Your task to perform on an android device: create a new album in the google photos Image 0: 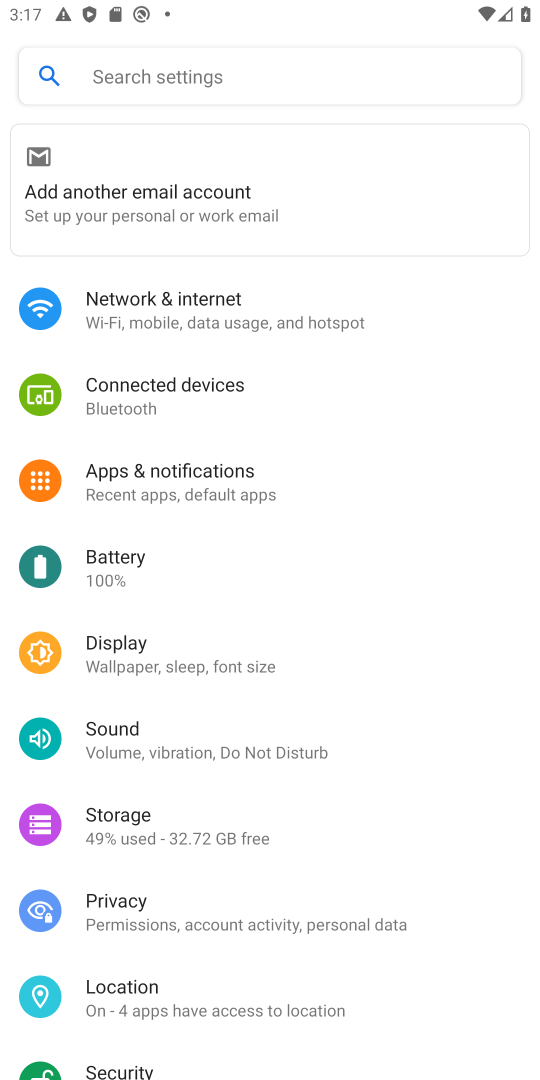
Step 0: press back button
Your task to perform on an android device: create a new album in the google photos Image 1: 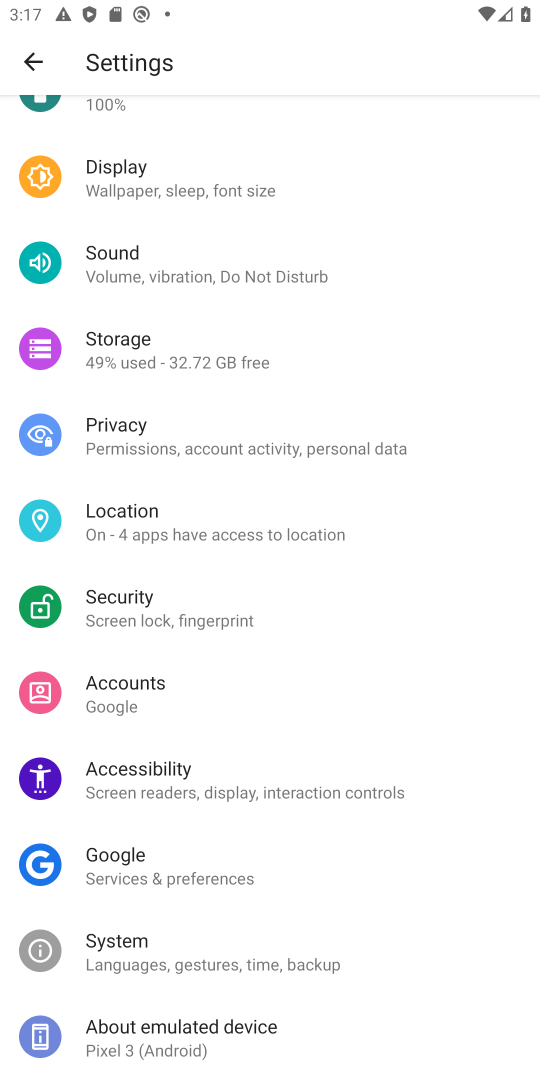
Step 1: press home button
Your task to perform on an android device: create a new album in the google photos Image 2: 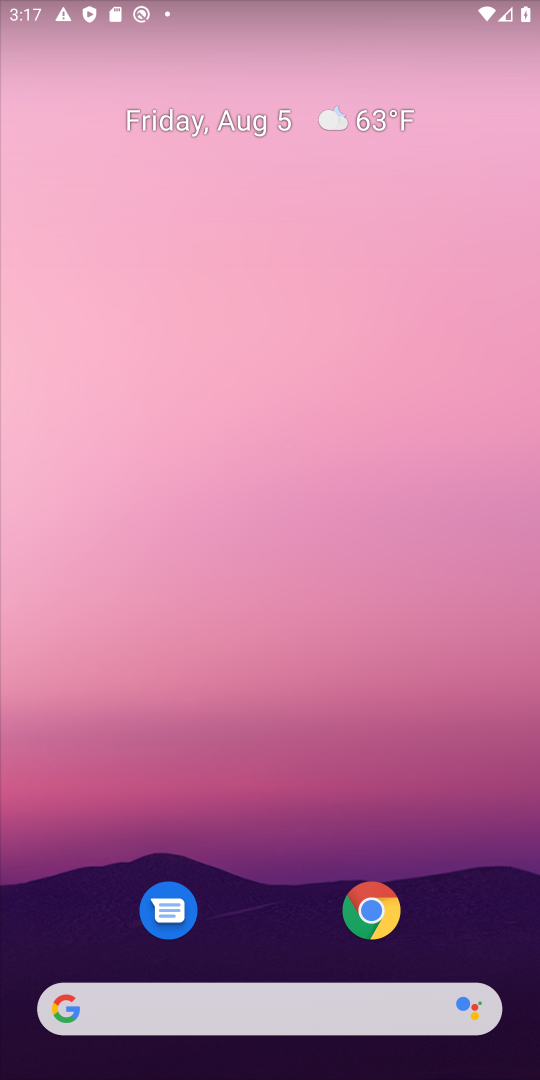
Step 2: drag from (456, 946) to (134, 137)
Your task to perform on an android device: create a new album in the google photos Image 3: 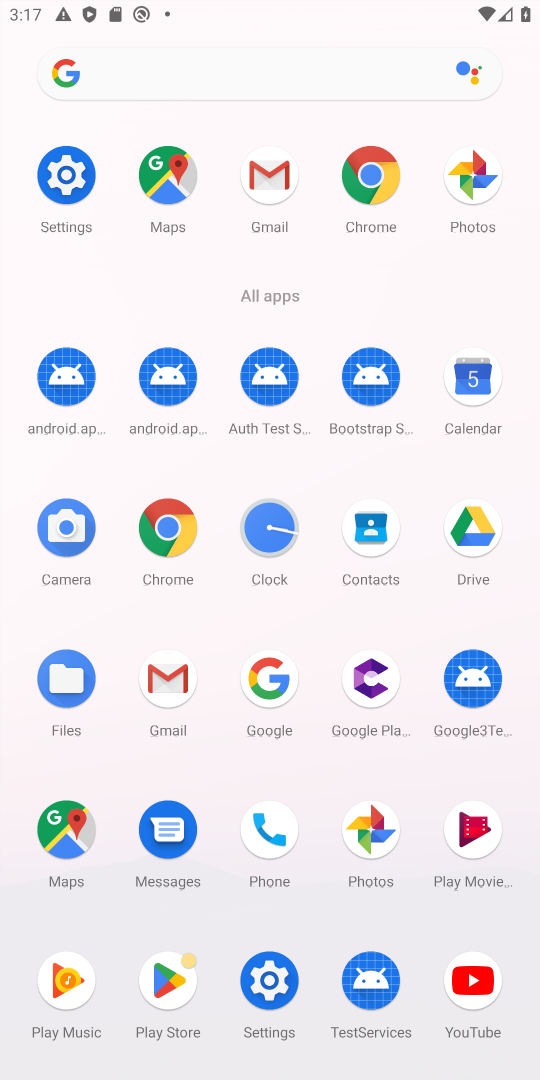
Step 3: click (481, 180)
Your task to perform on an android device: create a new album in the google photos Image 4: 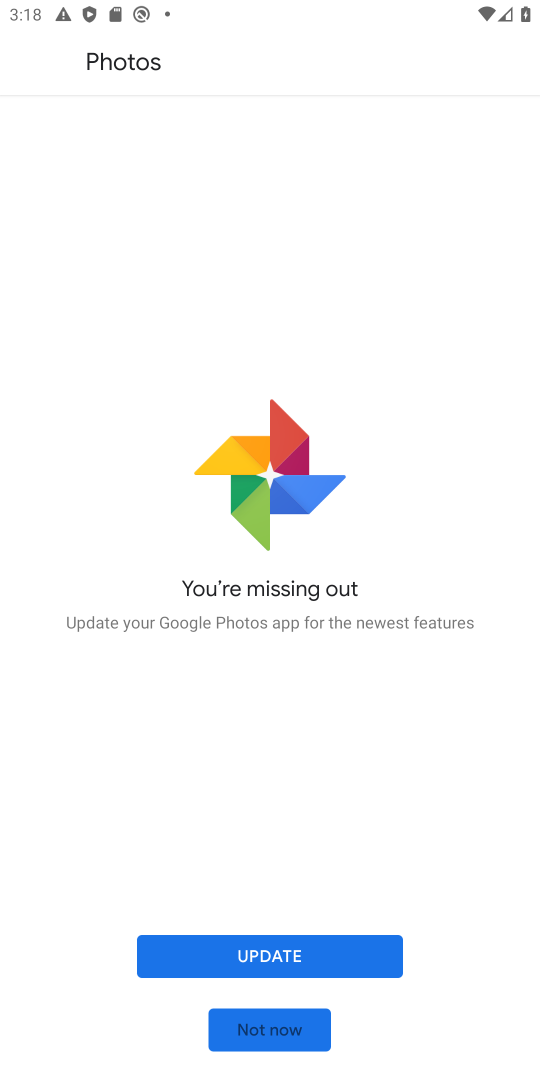
Step 4: click (305, 944)
Your task to perform on an android device: create a new album in the google photos Image 5: 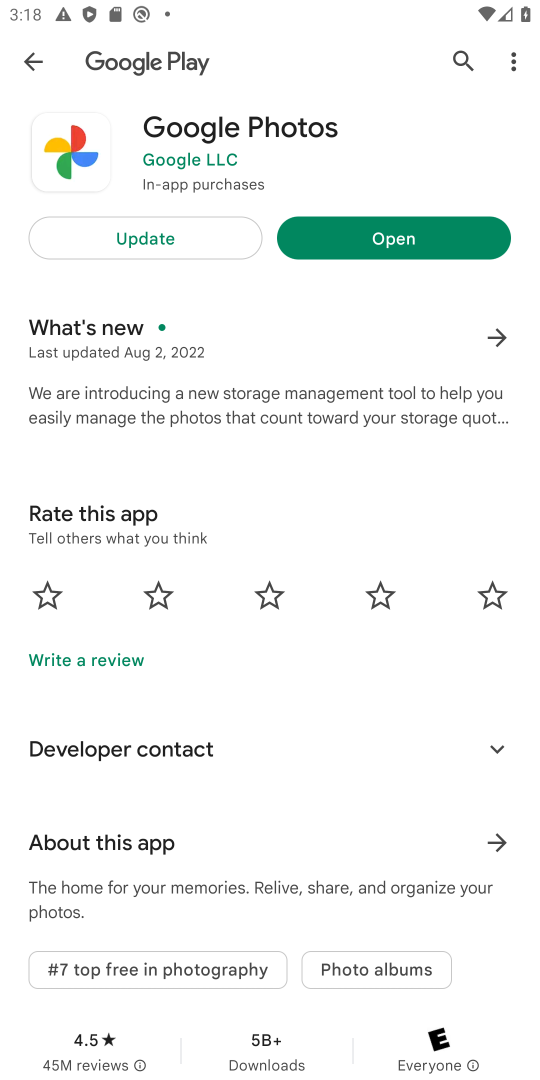
Step 5: click (128, 229)
Your task to perform on an android device: create a new album in the google photos Image 6: 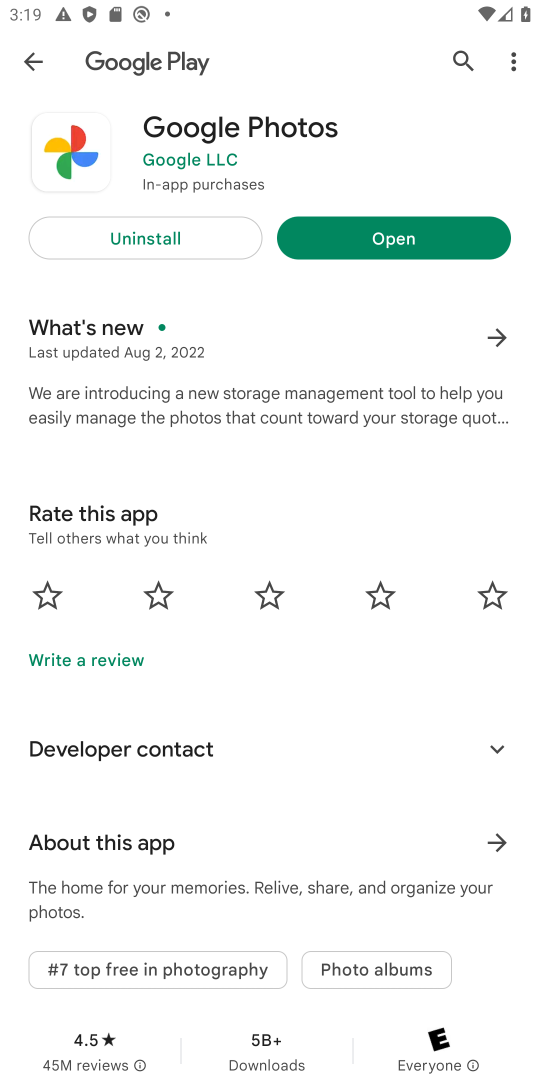
Step 6: click (477, 246)
Your task to perform on an android device: create a new album in the google photos Image 7: 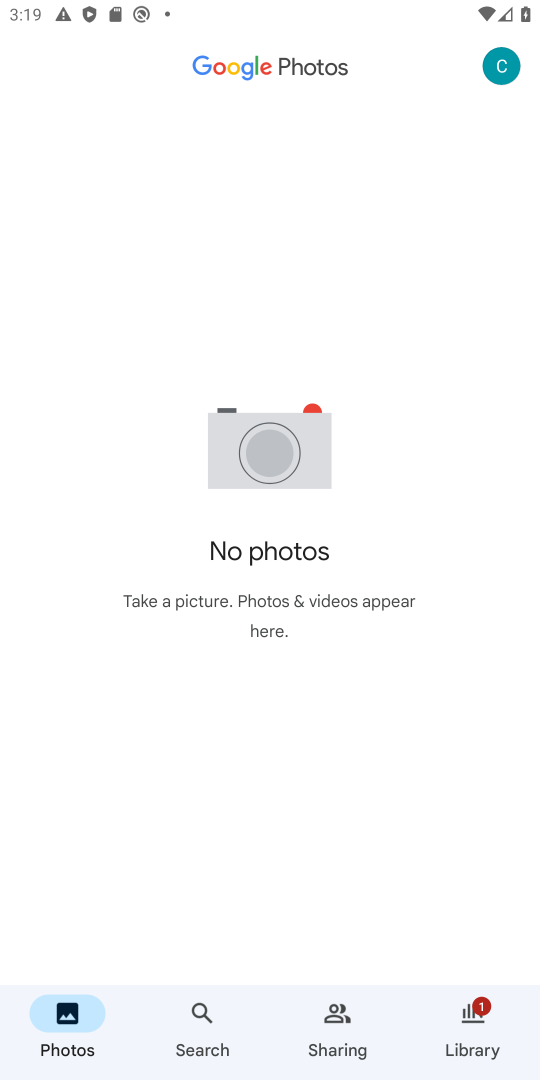
Step 7: click (473, 1044)
Your task to perform on an android device: create a new album in the google photos Image 8: 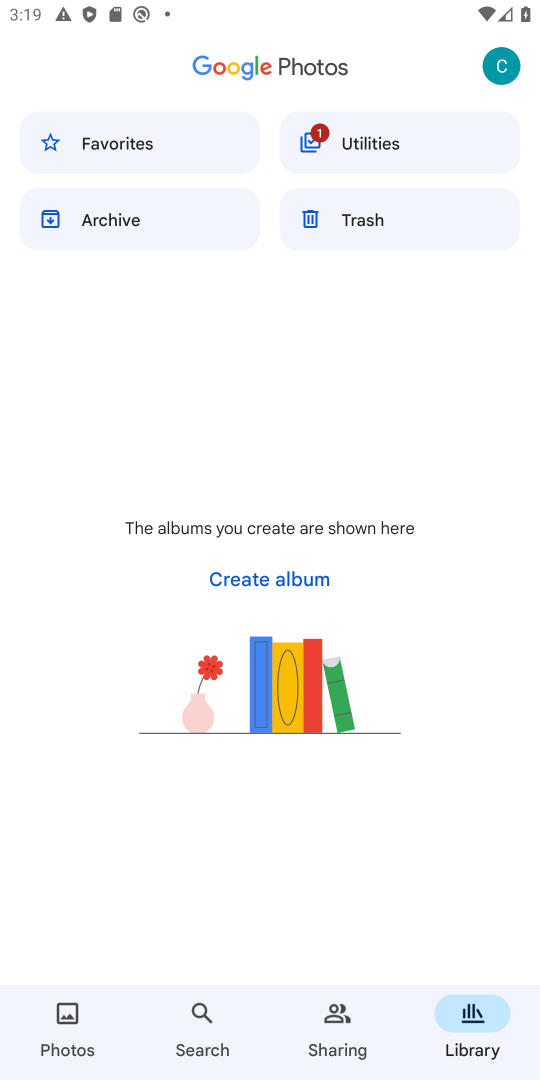
Step 8: click (306, 585)
Your task to perform on an android device: create a new album in the google photos Image 9: 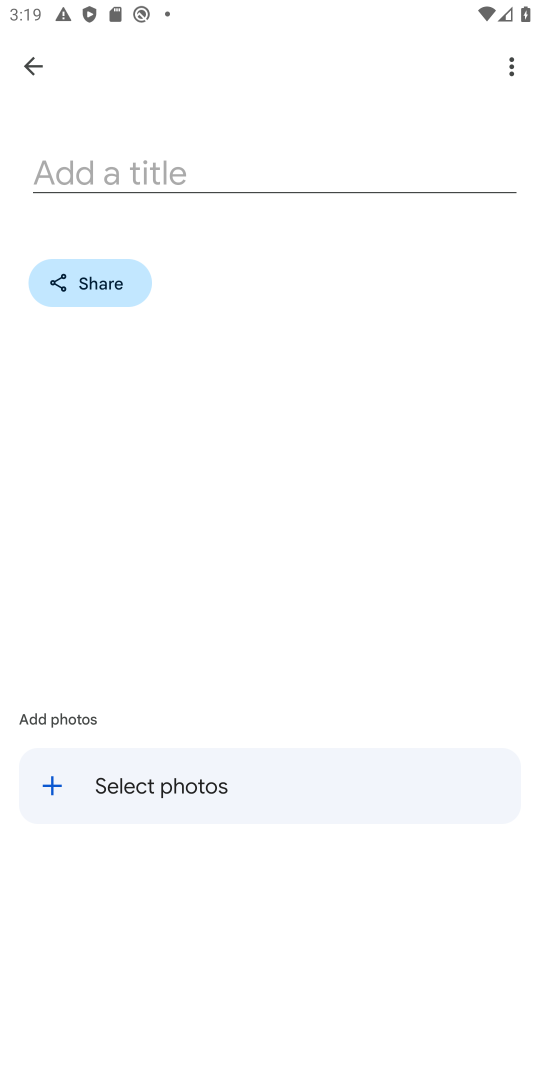
Step 9: click (295, 797)
Your task to perform on an android device: create a new album in the google photos Image 10: 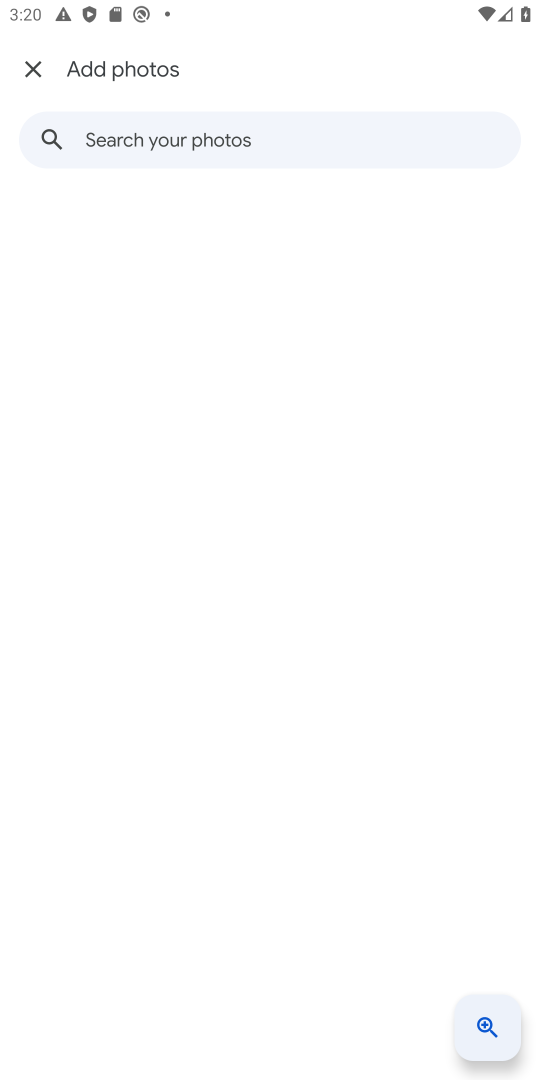
Step 10: task complete